Your task to perform on an android device: turn off improve location accuracy Image 0: 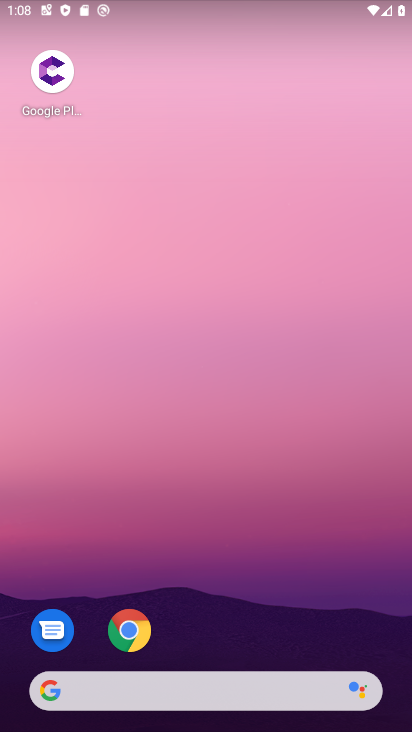
Step 0: drag from (234, 597) to (237, 59)
Your task to perform on an android device: turn off improve location accuracy Image 1: 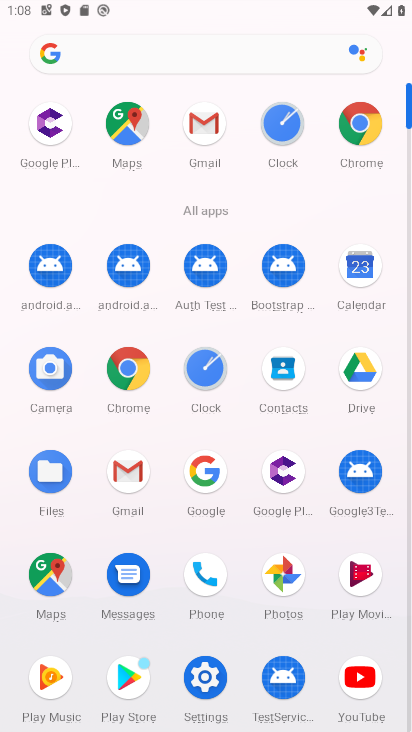
Step 1: click (198, 690)
Your task to perform on an android device: turn off improve location accuracy Image 2: 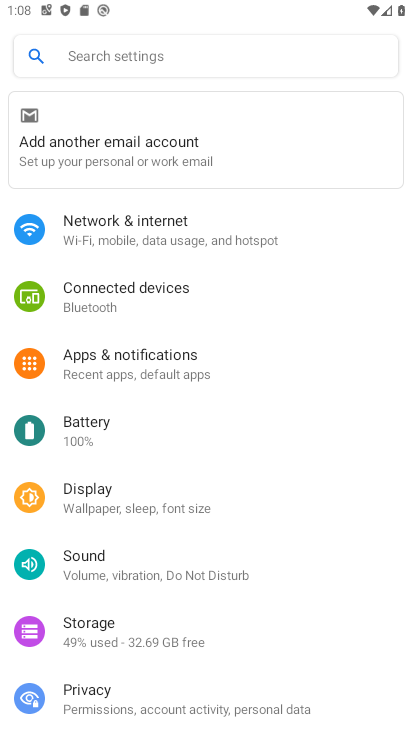
Step 2: drag from (227, 623) to (201, 254)
Your task to perform on an android device: turn off improve location accuracy Image 3: 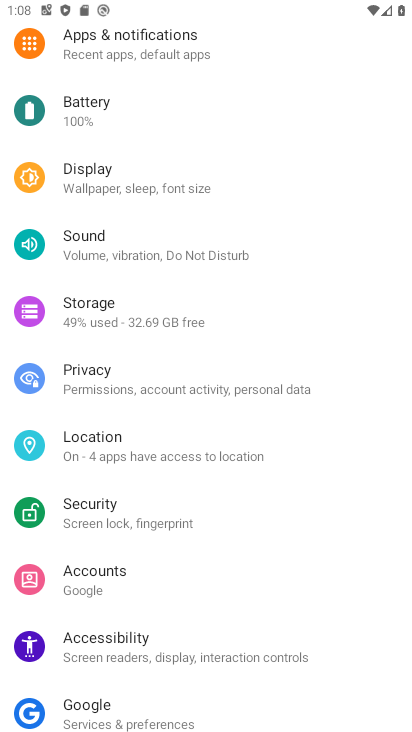
Step 3: click (115, 446)
Your task to perform on an android device: turn off improve location accuracy Image 4: 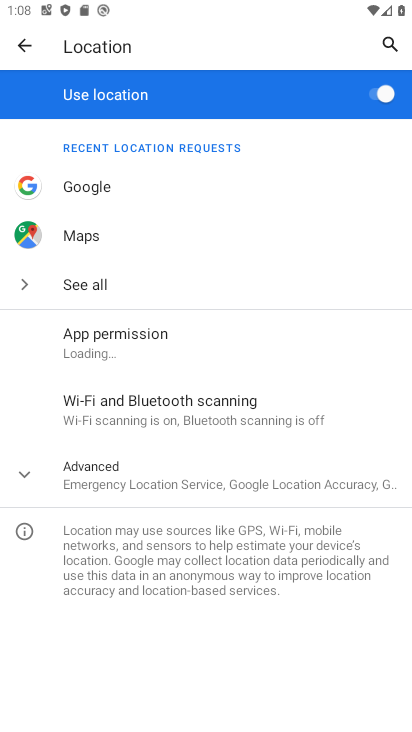
Step 4: click (94, 465)
Your task to perform on an android device: turn off improve location accuracy Image 5: 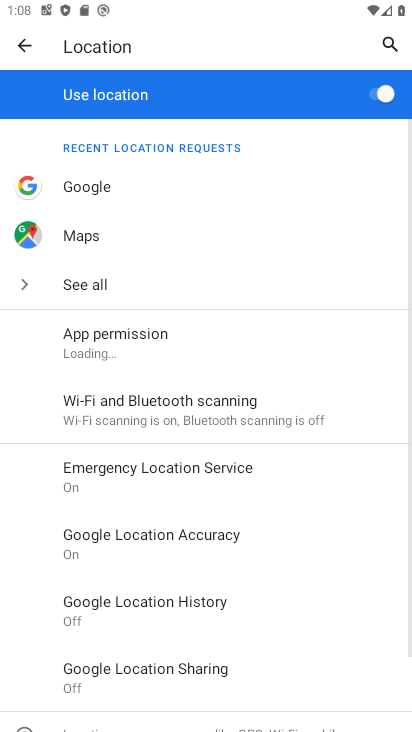
Step 5: click (194, 542)
Your task to perform on an android device: turn off improve location accuracy Image 6: 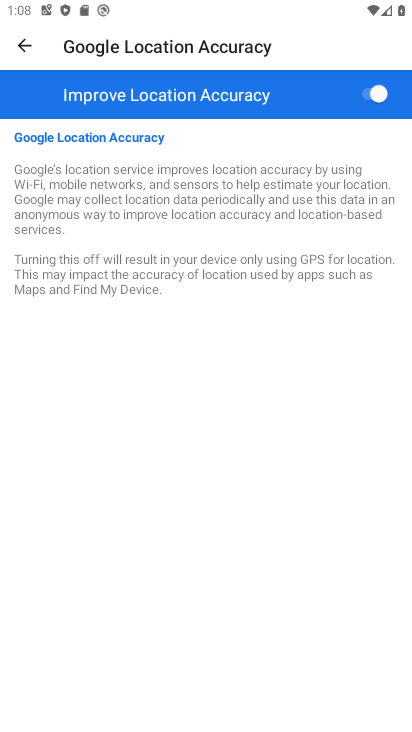
Step 6: click (370, 95)
Your task to perform on an android device: turn off improve location accuracy Image 7: 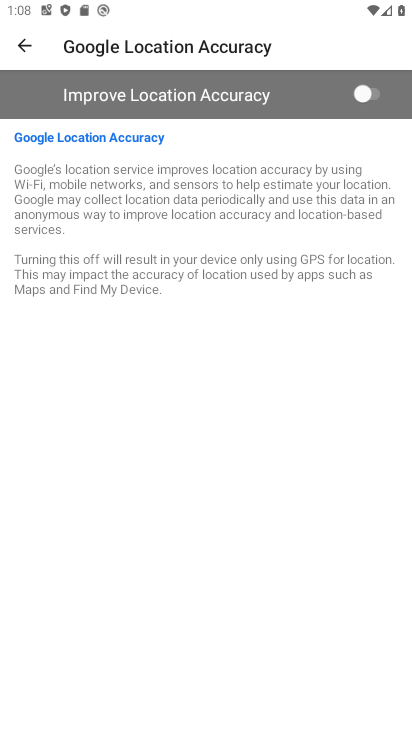
Step 7: task complete